Your task to perform on an android device: turn on javascript in the chrome app Image 0: 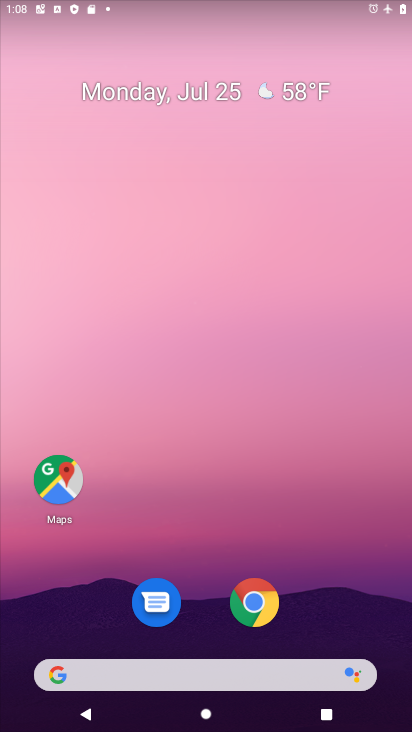
Step 0: click (236, 600)
Your task to perform on an android device: turn on javascript in the chrome app Image 1: 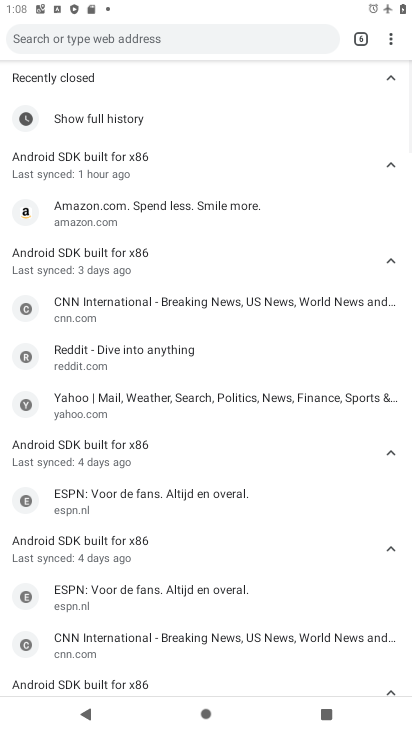
Step 1: click (383, 41)
Your task to perform on an android device: turn on javascript in the chrome app Image 2: 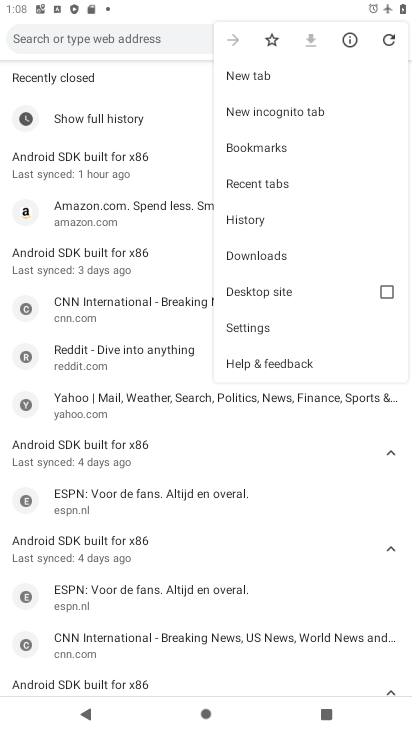
Step 2: click (261, 318)
Your task to perform on an android device: turn on javascript in the chrome app Image 3: 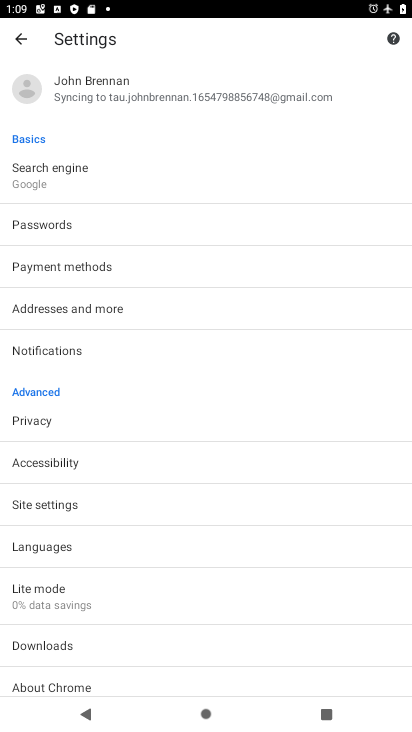
Step 3: click (117, 514)
Your task to perform on an android device: turn on javascript in the chrome app Image 4: 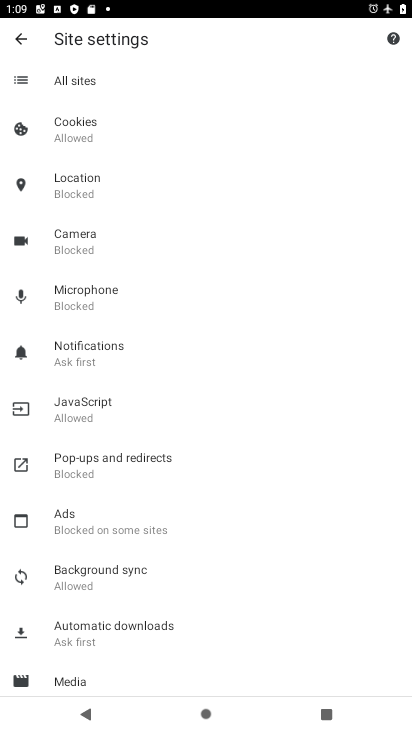
Step 4: click (175, 416)
Your task to perform on an android device: turn on javascript in the chrome app Image 5: 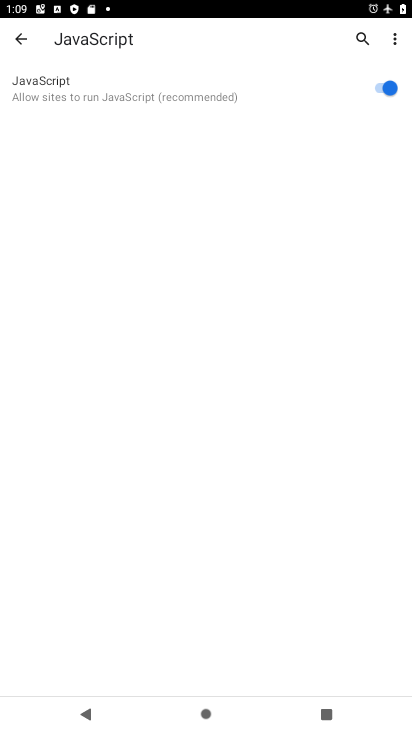
Step 5: task complete